Your task to perform on an android device: Show me popular games on the Play Store Image 0: 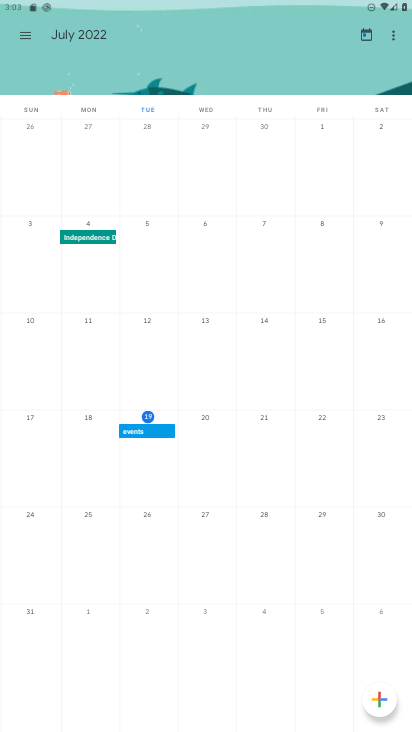
Step 0: press home button
Your task to perform on an android device: Show me popular games on the Play Store Image 1: 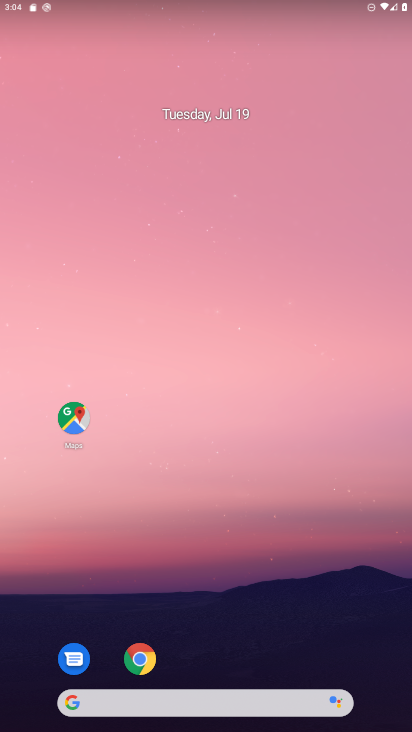
Step 1: drag from (303, 585) to (245, 7)
Your task to perform on an android device: Show me popular games on the Play Store Image 2: 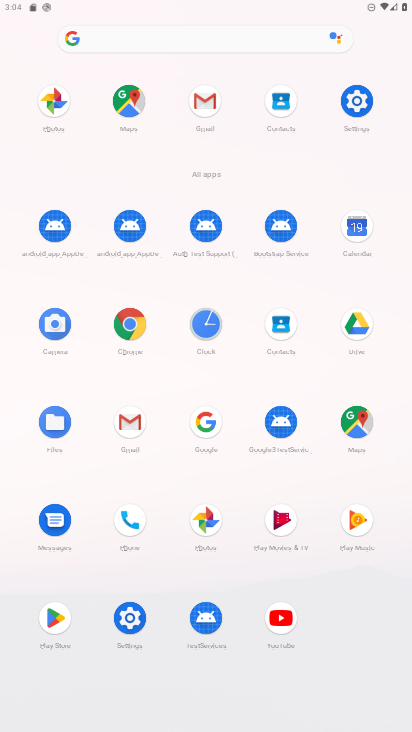
Step 2: click (52, 613)
Your task to perform on an android device: Show me popular games on the Play Store Image 3: 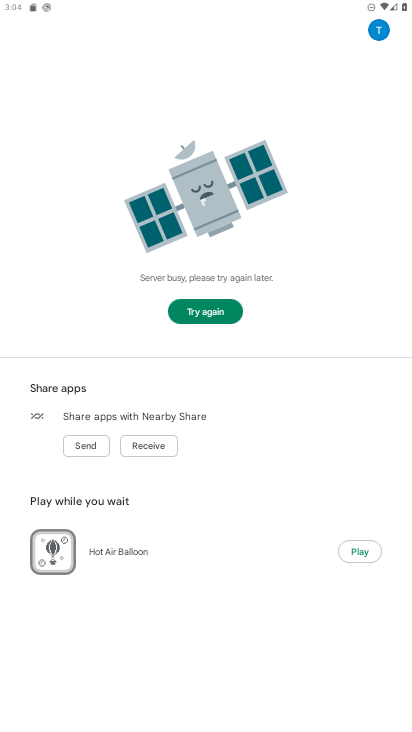
Step 3: click (203, 313)
Your task to perform on an android device: Show me popular games on the Play Store Image 4: 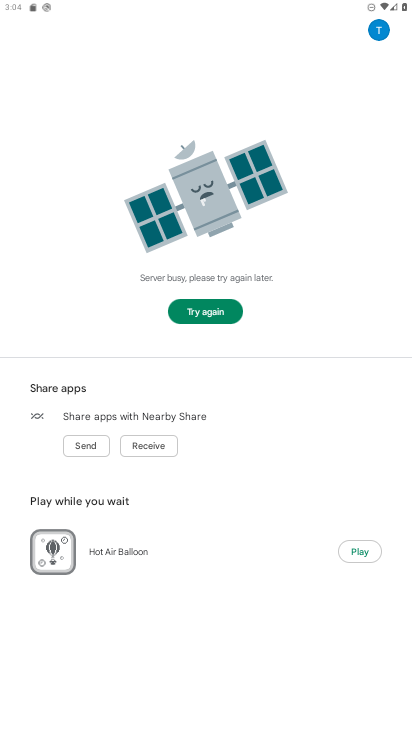
Step 4: click (224, 309)
Your task to perform on an android device: Show me popular games on the Play Store Image 5: 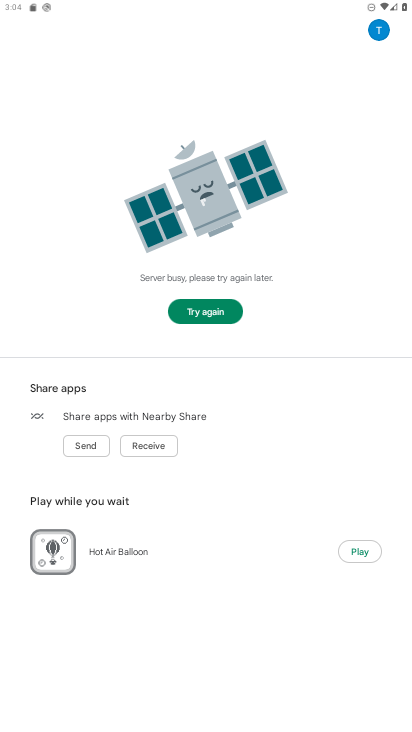
Step 5: task complete